Your task to perform on an android device: change the clock display to analog Image 0: 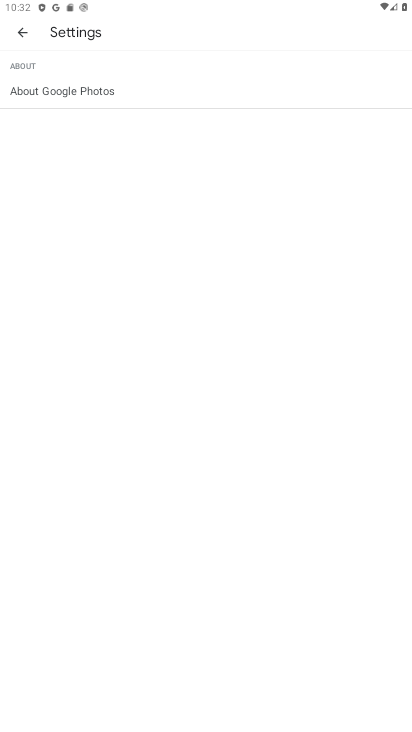
Step 0: press home button
Your task to perform on an android device: change the clock display to analog Image 1: 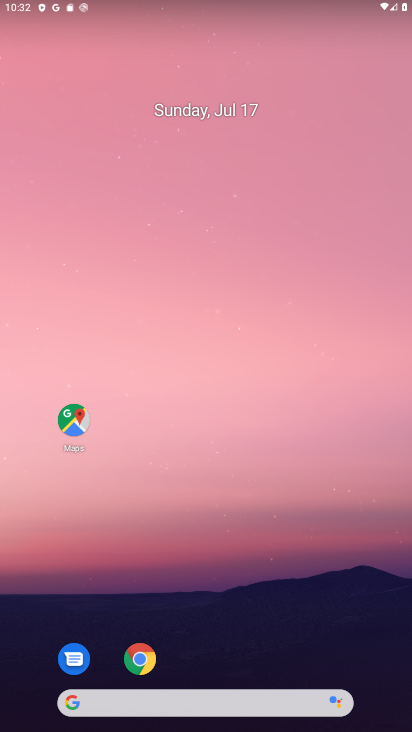
Step 1: drag from (223, 661) to (365, 94)
Your task to perform on an android device: change the clock display to analog Image 2: 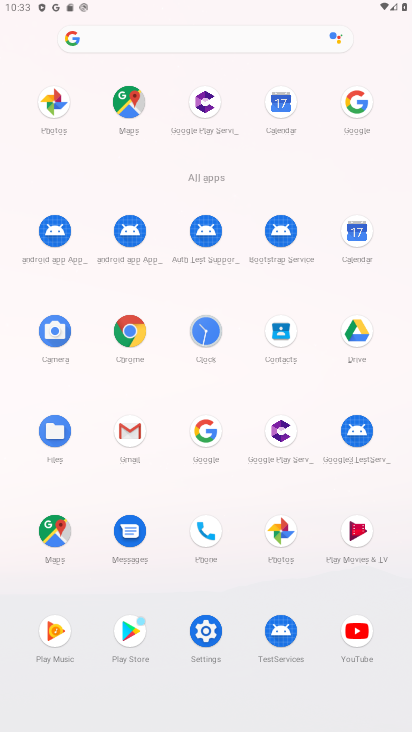
Step 2: click (198, 326)
Your task to perform on an android device: change the clock display to analog Image 3: 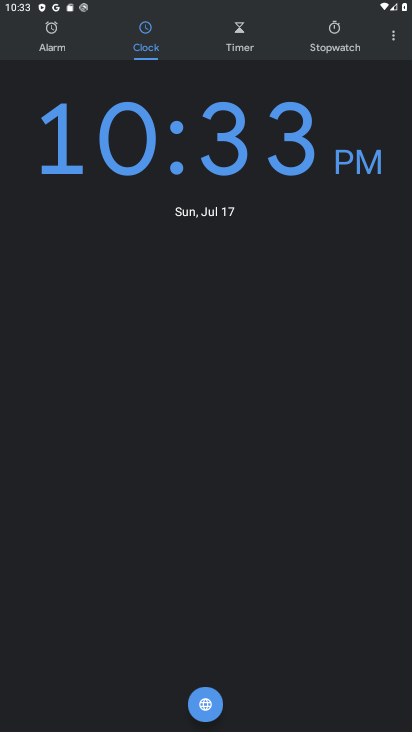
Step 3: click (396, 26)
Your task to perform on an android device: change the clock display to analog Image 4: 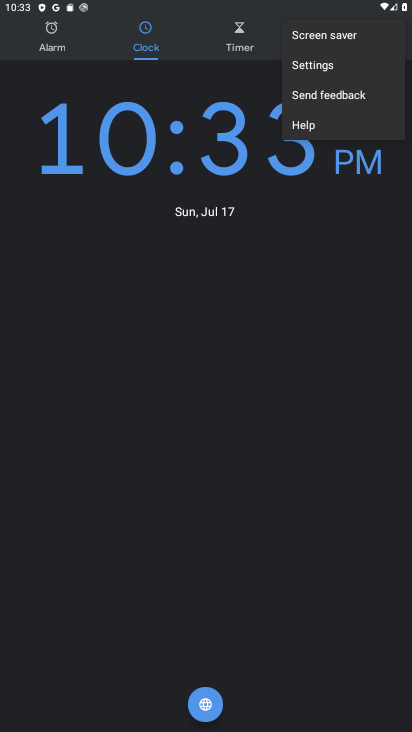
Step 4: click (343, 70)
Your task to perform on an android device: change the clock display to analog Image 5: 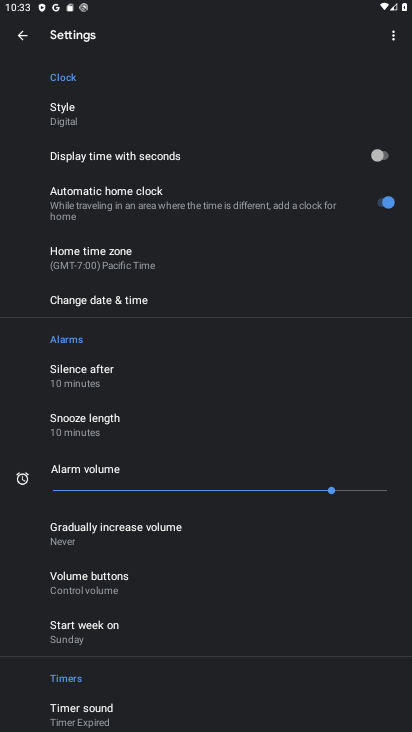
Step 5: click (112, 124)
Your task to perform on an android device: change the clock display to analog Image 6: 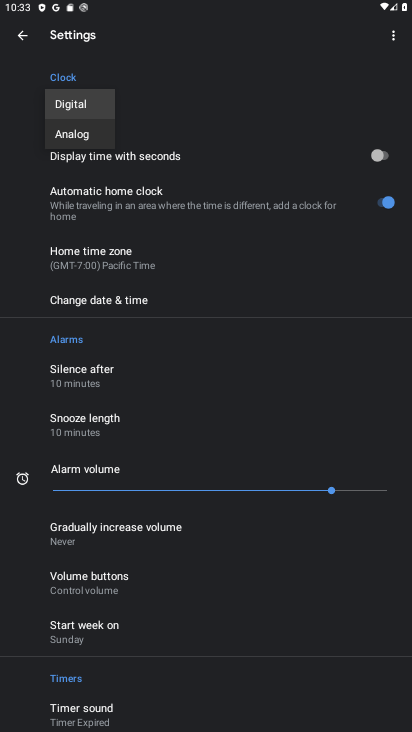
Step 6: click (94, 133)
Your task to perform on an android device: change the clock display to analog Image 7: 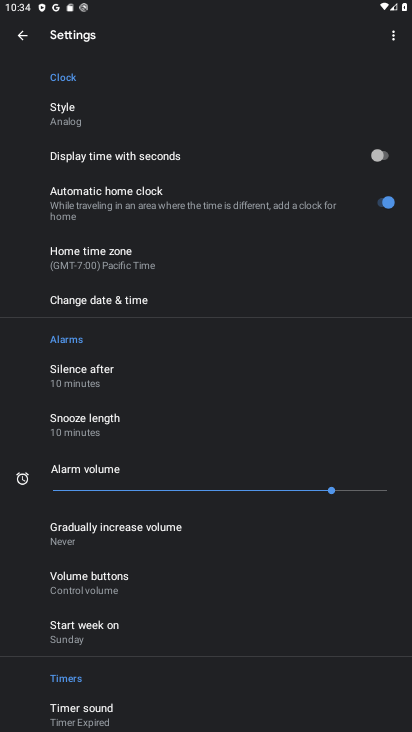
Step 7: task complete